Your task to perform on an android device: Go to accessibility settings Image 0: 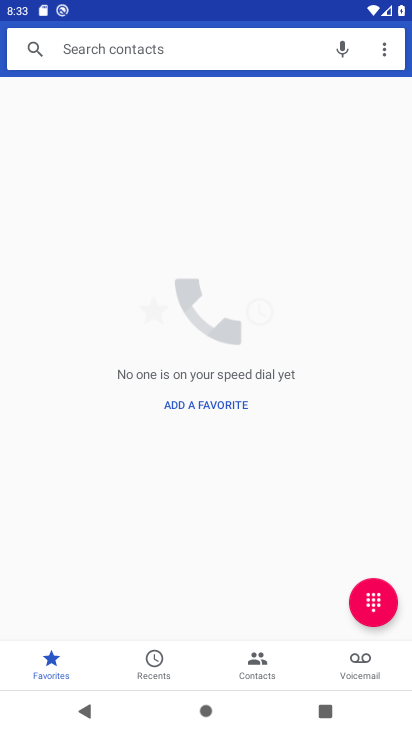
Step 0: press home button
Your task to perform on an android device: Go to accessibility settings Image 1: 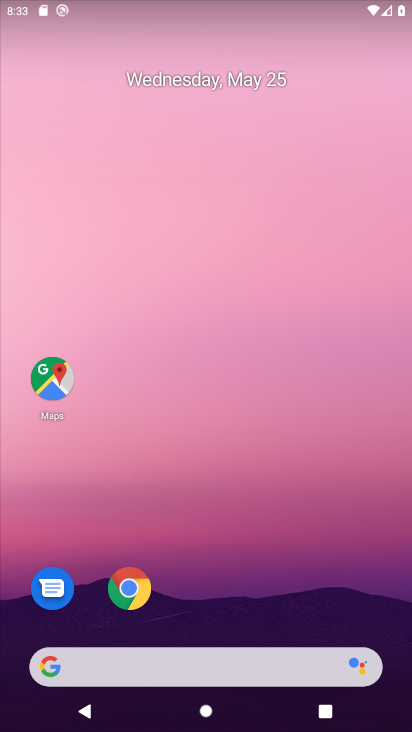
Step 1: drag from (378, 598) to (395, 192)
Your task to perform on an android device: Go to accessibility settings Image 2: 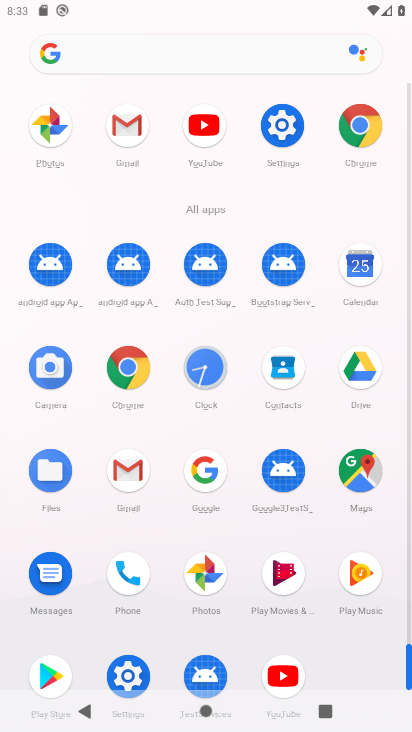
Step 2: click (283, 133)
Your task to perform on an android device: Go to accessibility settings Image 3: 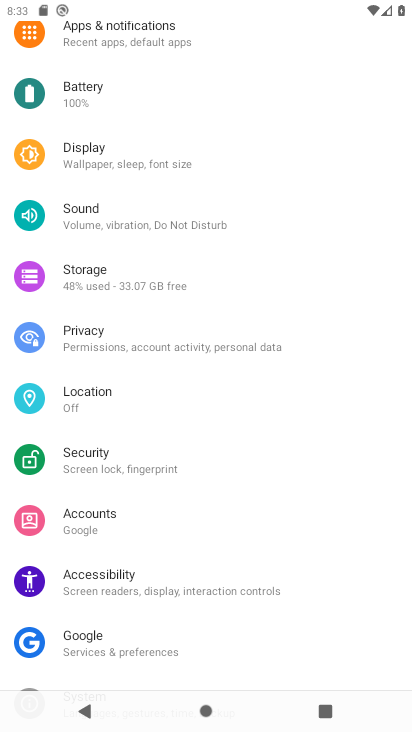
Step 3: drag from (326, 357) to (308, 438)
Your task to perform on an android device: Go to accessibility settings Image 4: 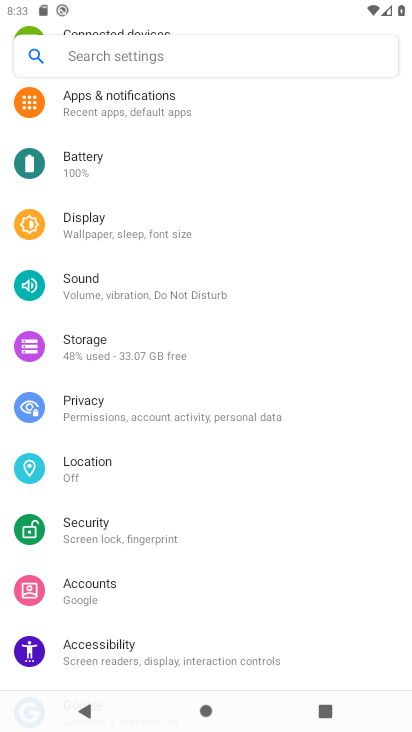
Step 4: drag from (291, 281) to (283, 372)
Your task to perform on an android device: Go to accessibility settings Image 5: 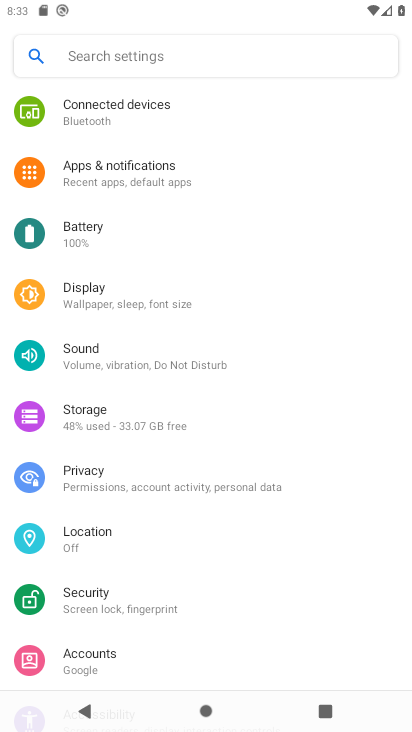
Step 5: drag from (317, 251) to (327, 345)
Your task to perform on an android device: Go to accessibility settings Image 6: 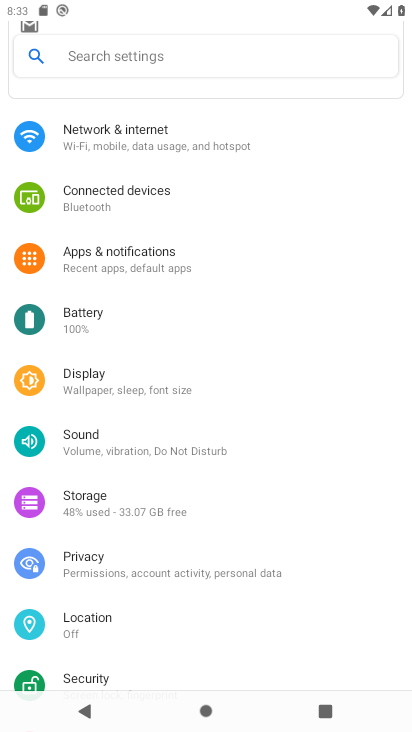
Step 6: drag from (323, 234) to (325, 350)
Your task to perform on an android device: Go to accessibility settings Image 7: 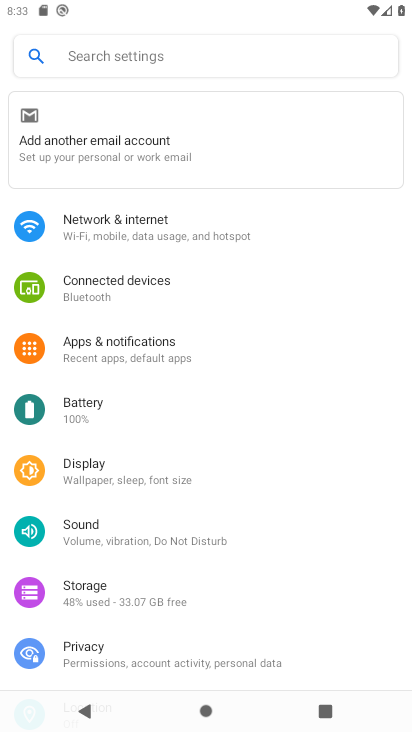
Step 7: drag from (333, 245) to (329, 383)
Your task to perform on an android device: Go to accessibility settings Image 8: 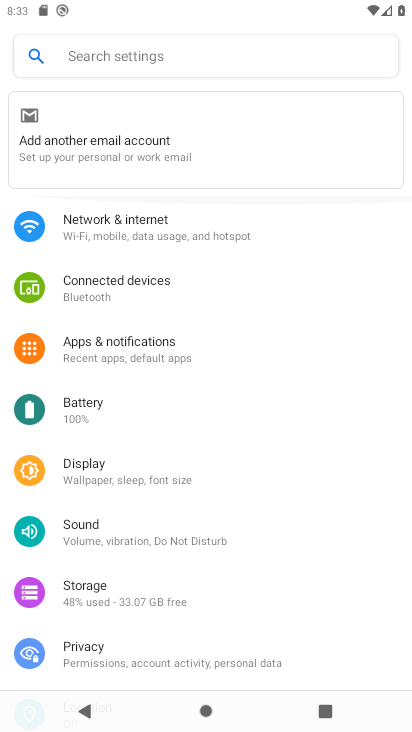
Step 8: drag from (339, 463) to (339, 367)
Your task to perform on an android device: Go to accessibility settings Image 9: 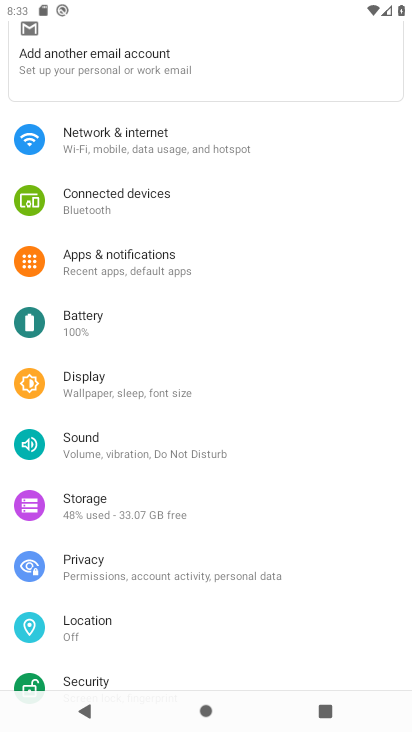
Step 9: drag from (327, 521) to (329, 431)
Your task to perform on an android device: Go to accessibility settings Image 10: 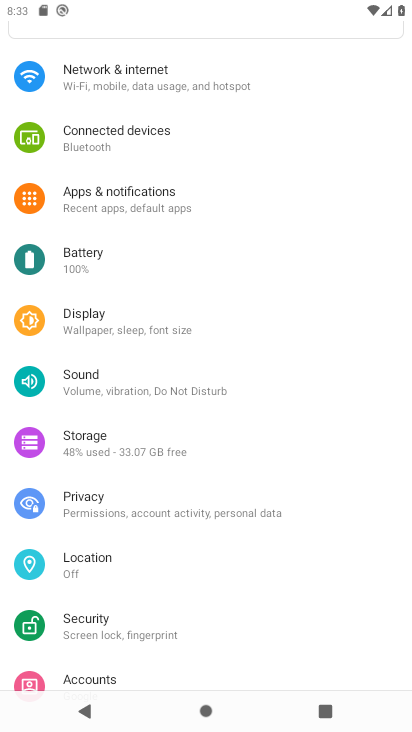
Step 10: drag from (318, 525) to (331, 432)
Your task to perform on an android device: Go to accessibility settings Image 11: 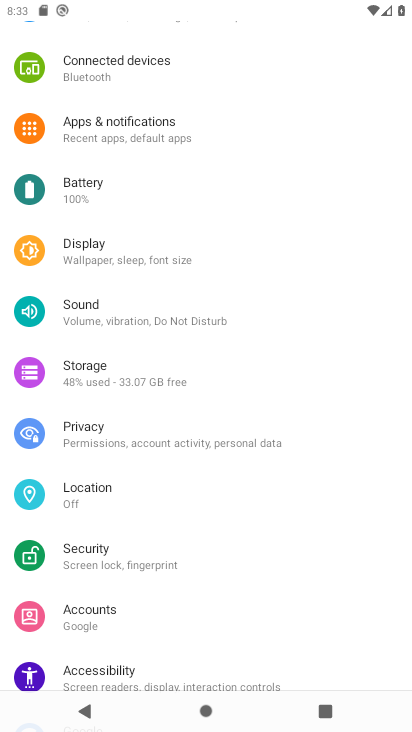
Step 11: drag from (320, 545) to (340, 423)
Your task to perform on an android device: Go to accessibility settings Image 12: 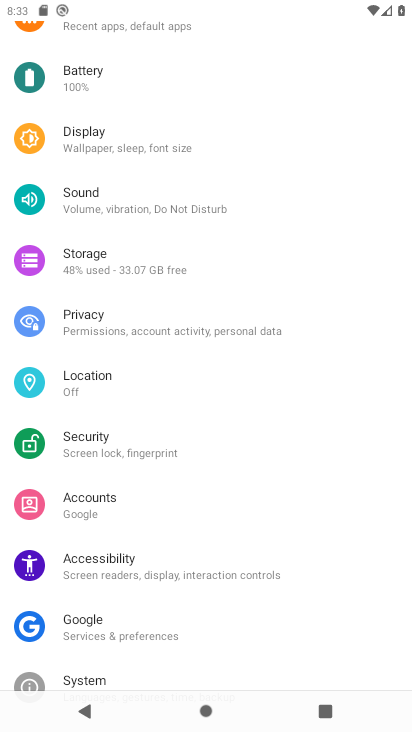
Step 12: drag from (330, 557) to (345, 452)
Your task to perform on an android device: Go to accessibility settings Image 13: 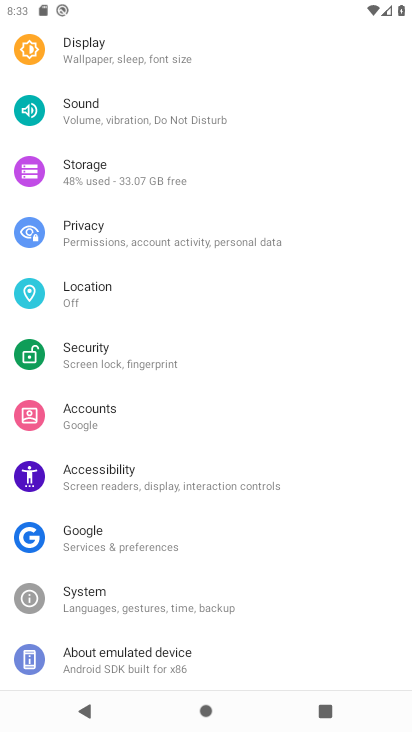
Step 13: drag from (327, 580) to (344, 480)
Your task to perform on an android device: Go to accessibility settings Image 14: 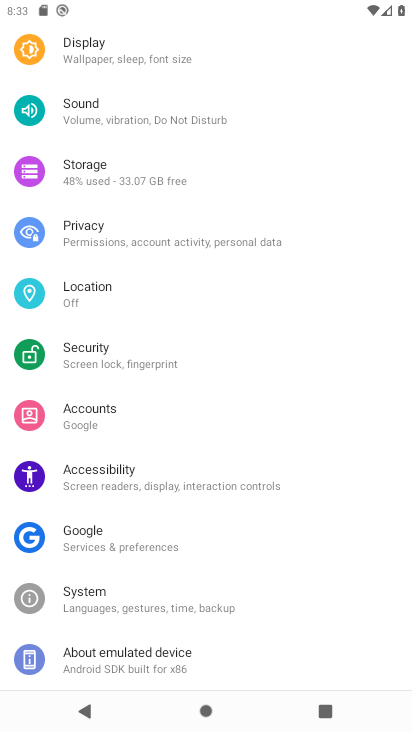
Step 14: click (261, 478)
Your task to perform on an android device: Go to accessibility settings Image 15: 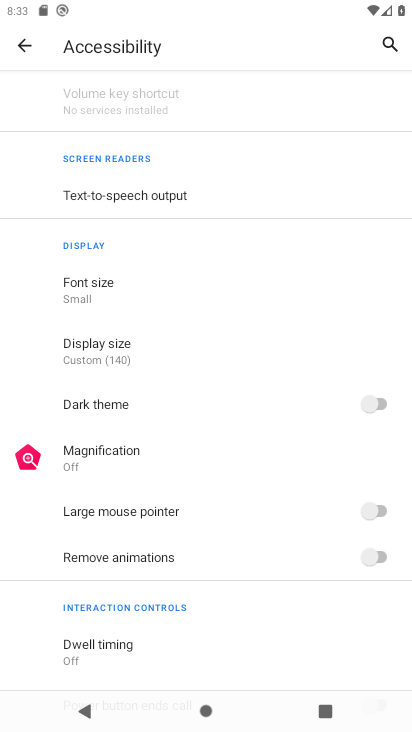
Step 15: task complete